Your task to perform on an android device: When is my next appointment? Image 0: 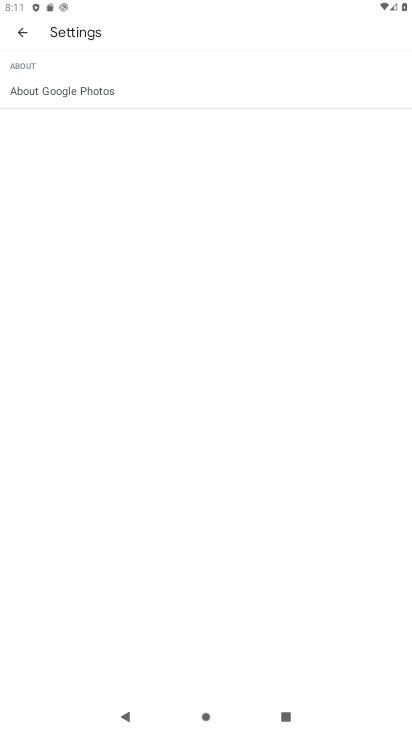
Step 0: click (221, 655)
Your task to perform on an android device: When is my next appointment? Image 1: 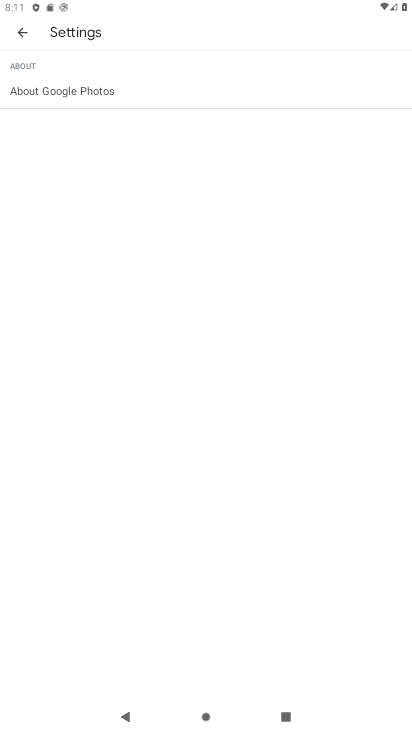
Step 1: press home button
Your task to perform on an android device: When is my next appointment? Image 2: 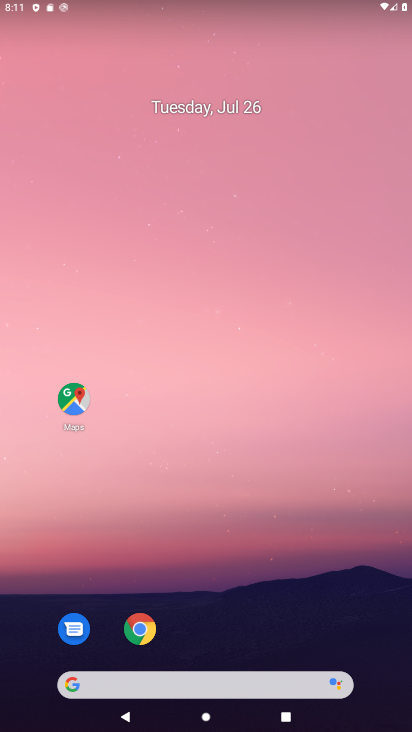
Step 2: drag from (238, 638) to (405, 9)
Your task to perform on an android device: When is my next appointment? Image 3: 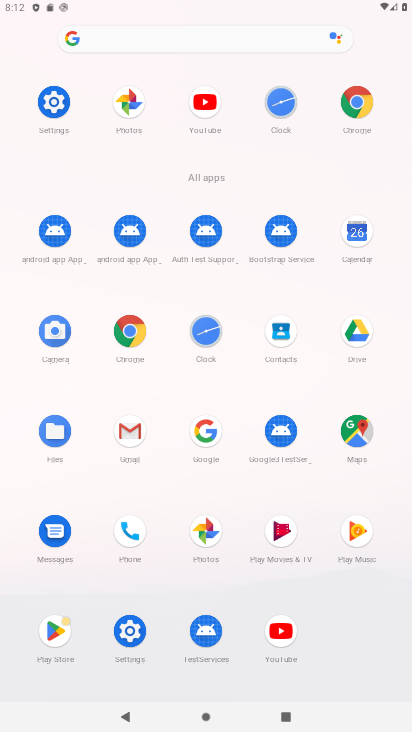
Step 3: click (353, 238)
Your task to perform on an android device: When is my next appointment? Image 4: 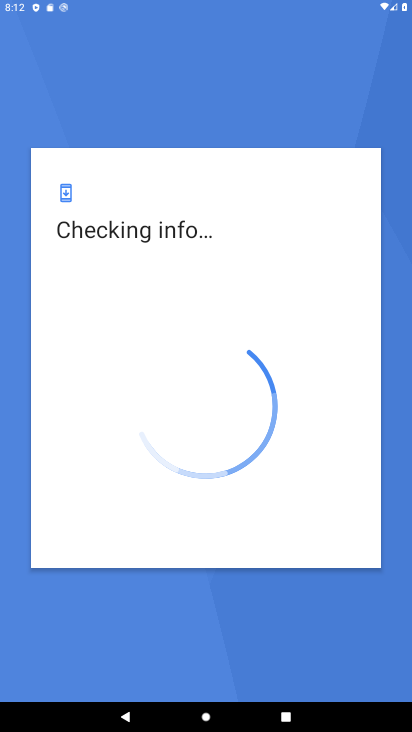
Step 4: task complete